Your task to perform on an android device: Add "duracell triple a" to the cart on walmart Image 0: 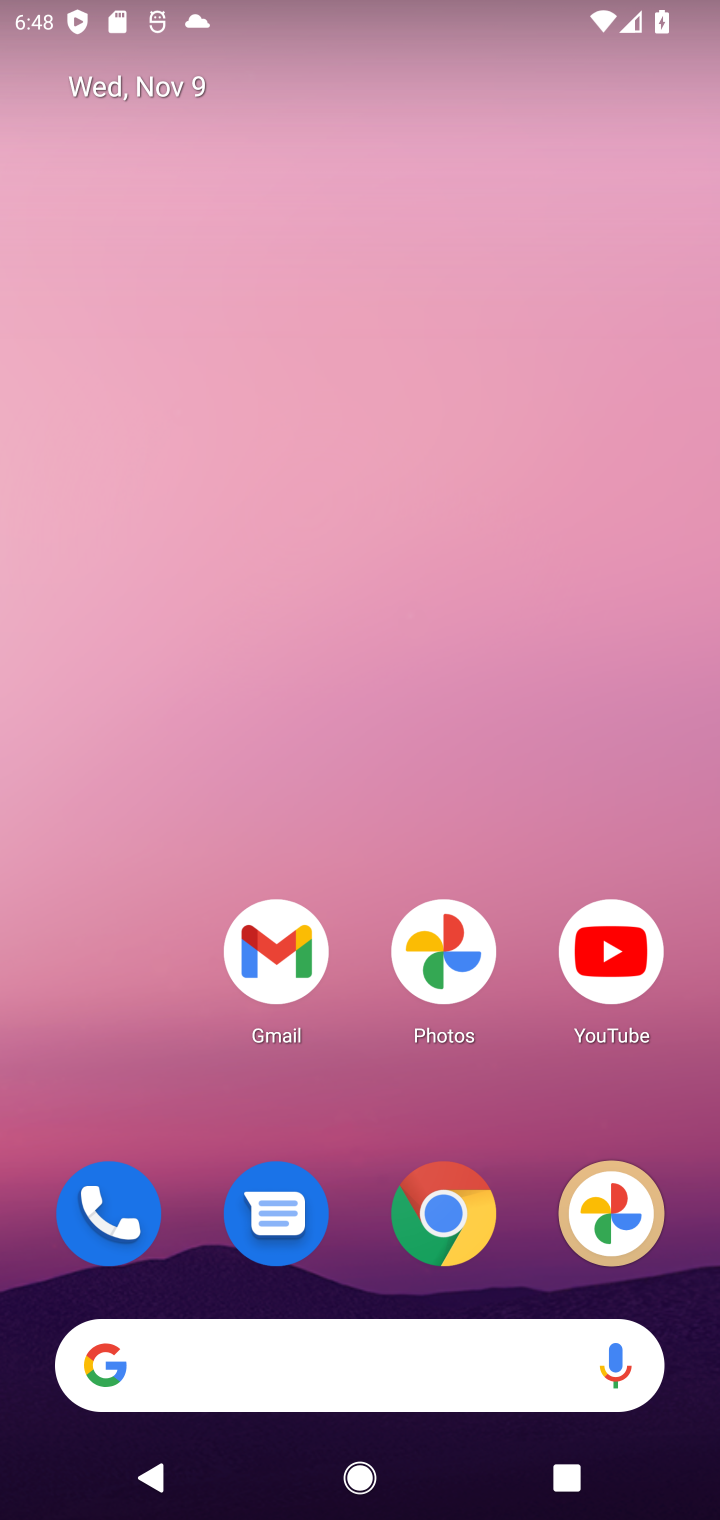
Step 0: click (463, 1234)
Your task to perform on an android device: Add "duracell triple a" to the cart on walmart Image 1: 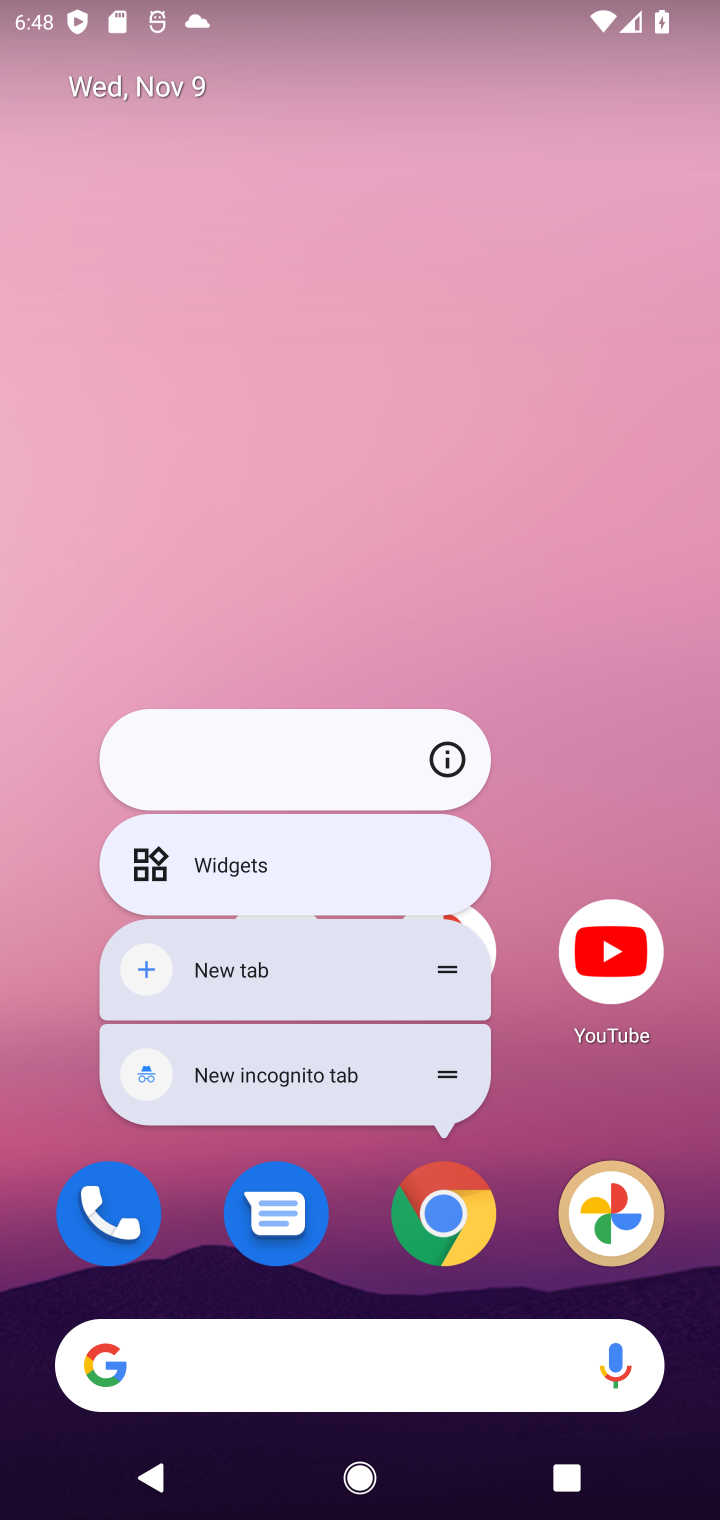
Step 1: click (457, 1234)
Your task to perform on an android device: Add "duracell triple a" to the cart on walmart Image 2: 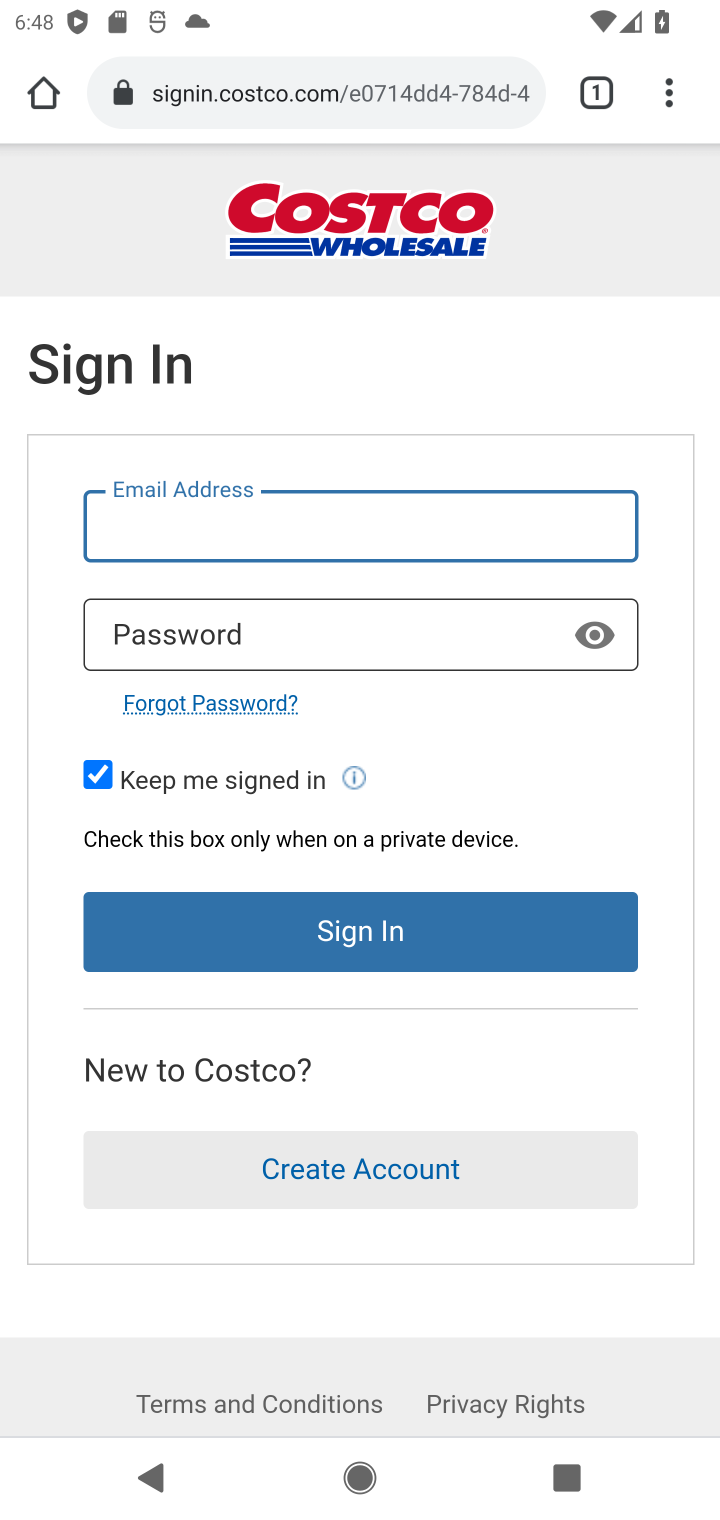
Step 2: click (278, 85)
Your task to perform on an android device: Add "duracell triple a" to the cart on walmart Image 3: 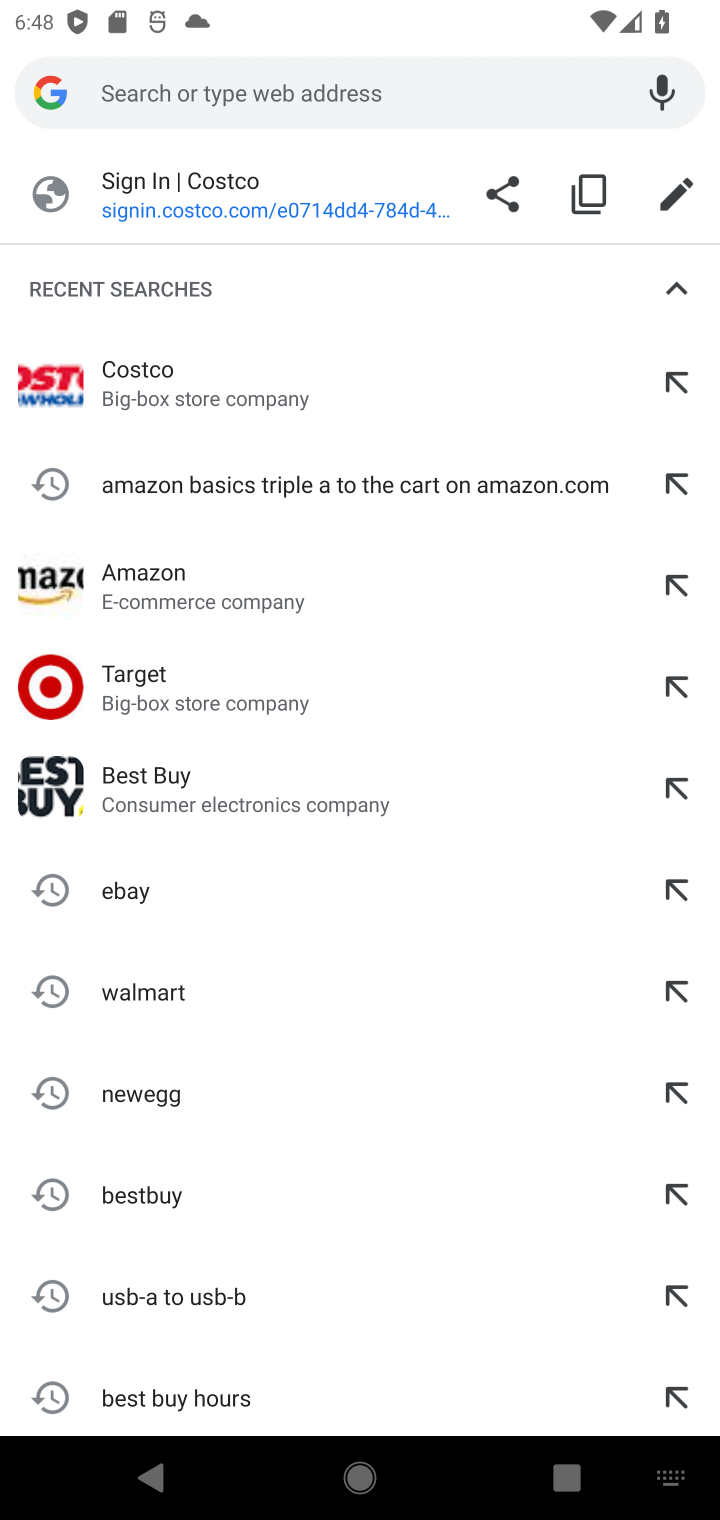
Step 3: type "walmart"
Your task to perform on an android device: Add "duracell triple a" to the cart on walmart Image 4: 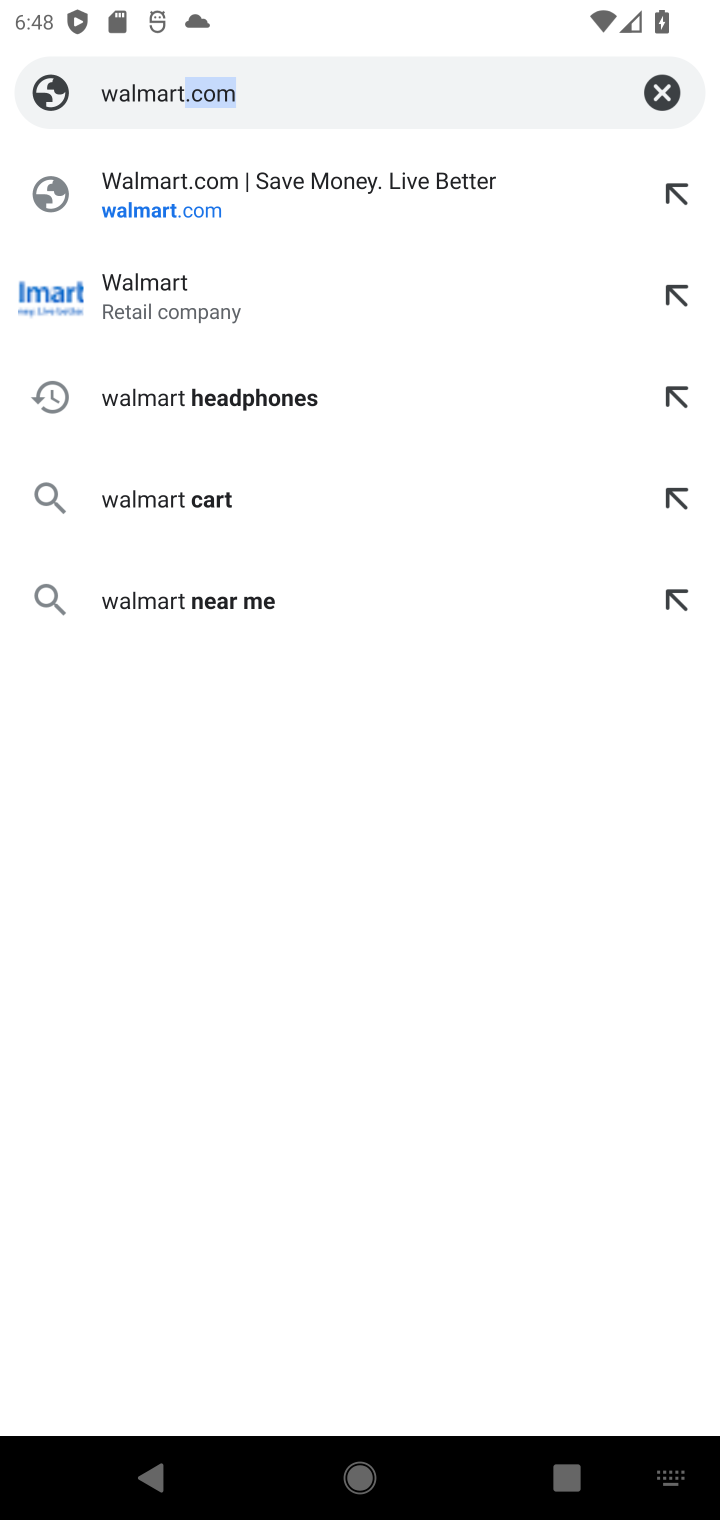
Step 4: click (135, 285)
Your task to perform on an android device: Add "duracell triple a" to the cart on walmart Image 5: 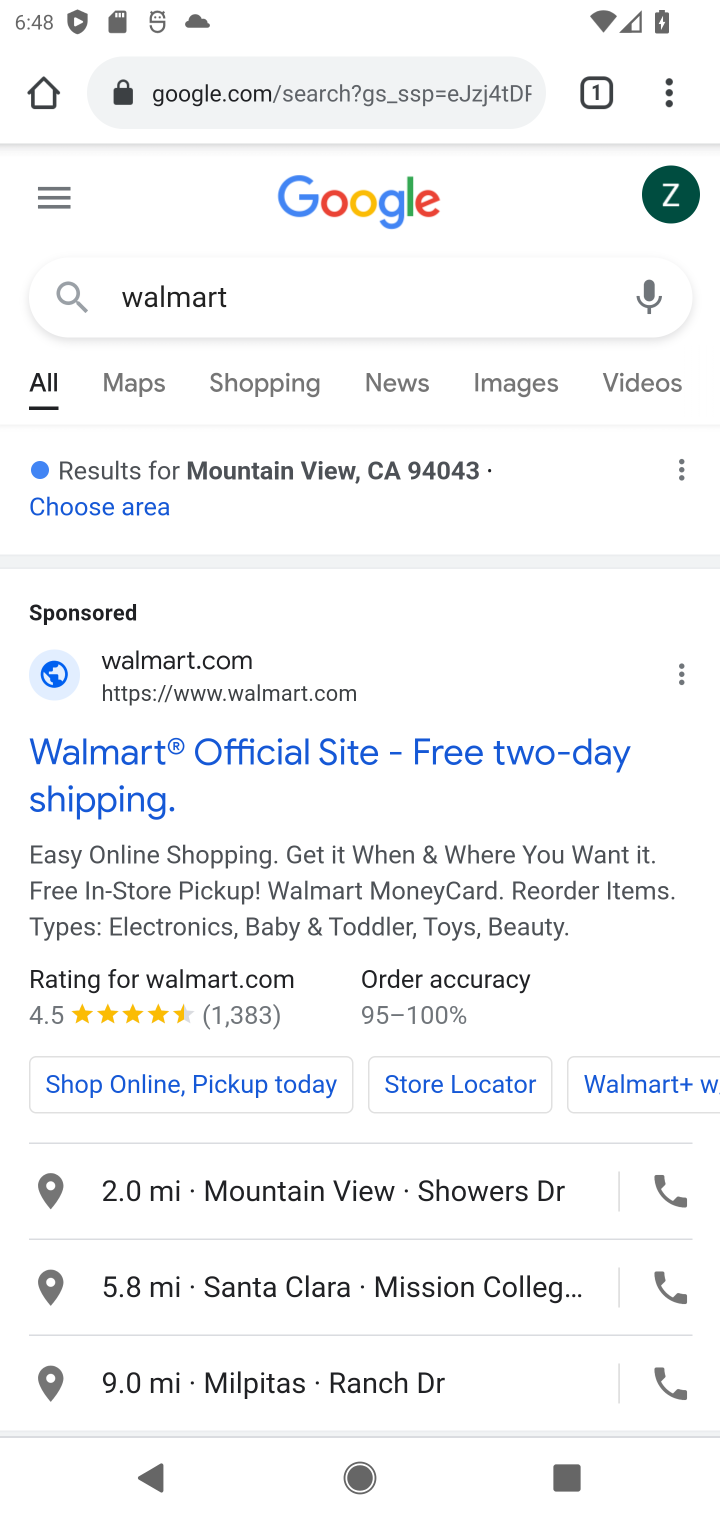
Step 5: drag from (108, 1163) to (390, 253)
Your task to perform on an android device: Add "duracell triple a" to the cart on walmart Image 6: 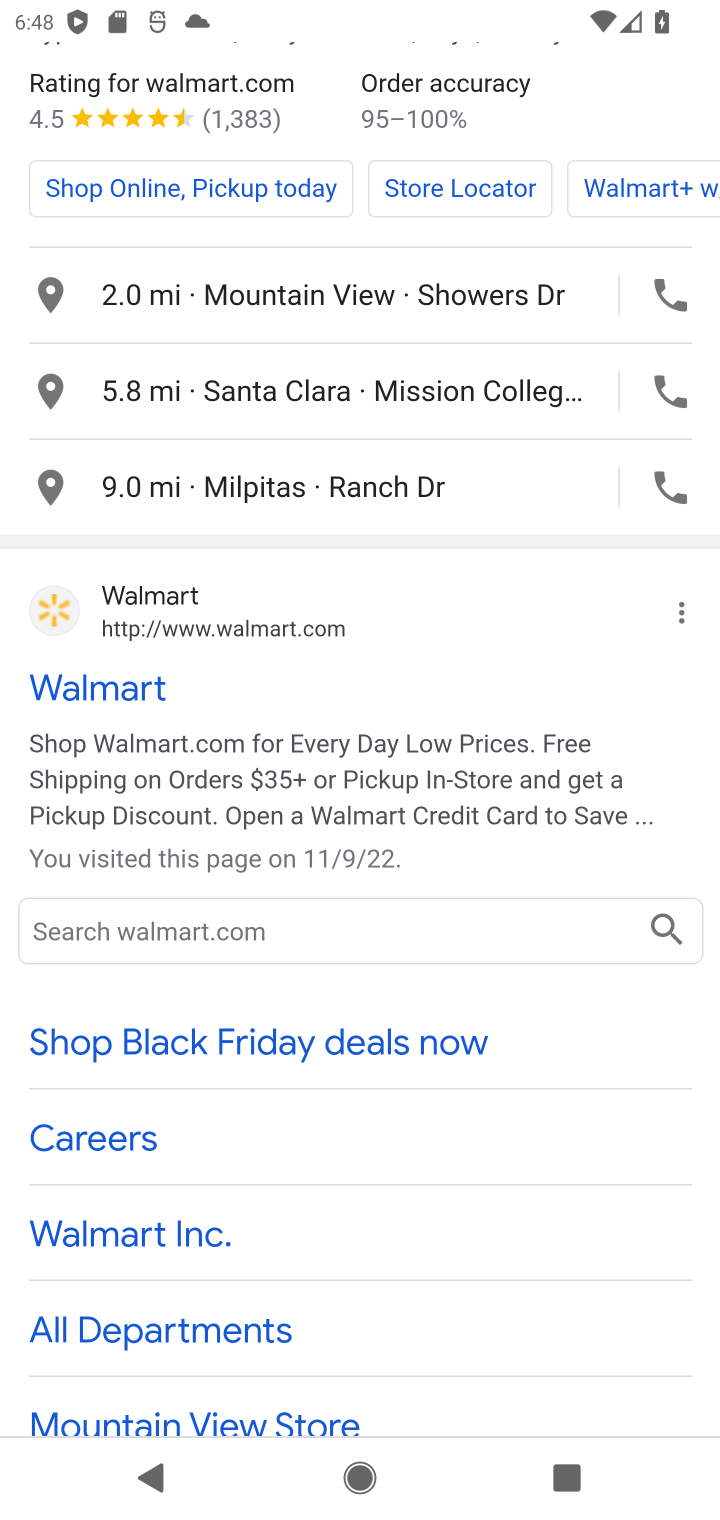
Step 6: click (89, 687)
Your task to perform on an android device: Add "duracell triple a" to the cart on walmart Image 7: 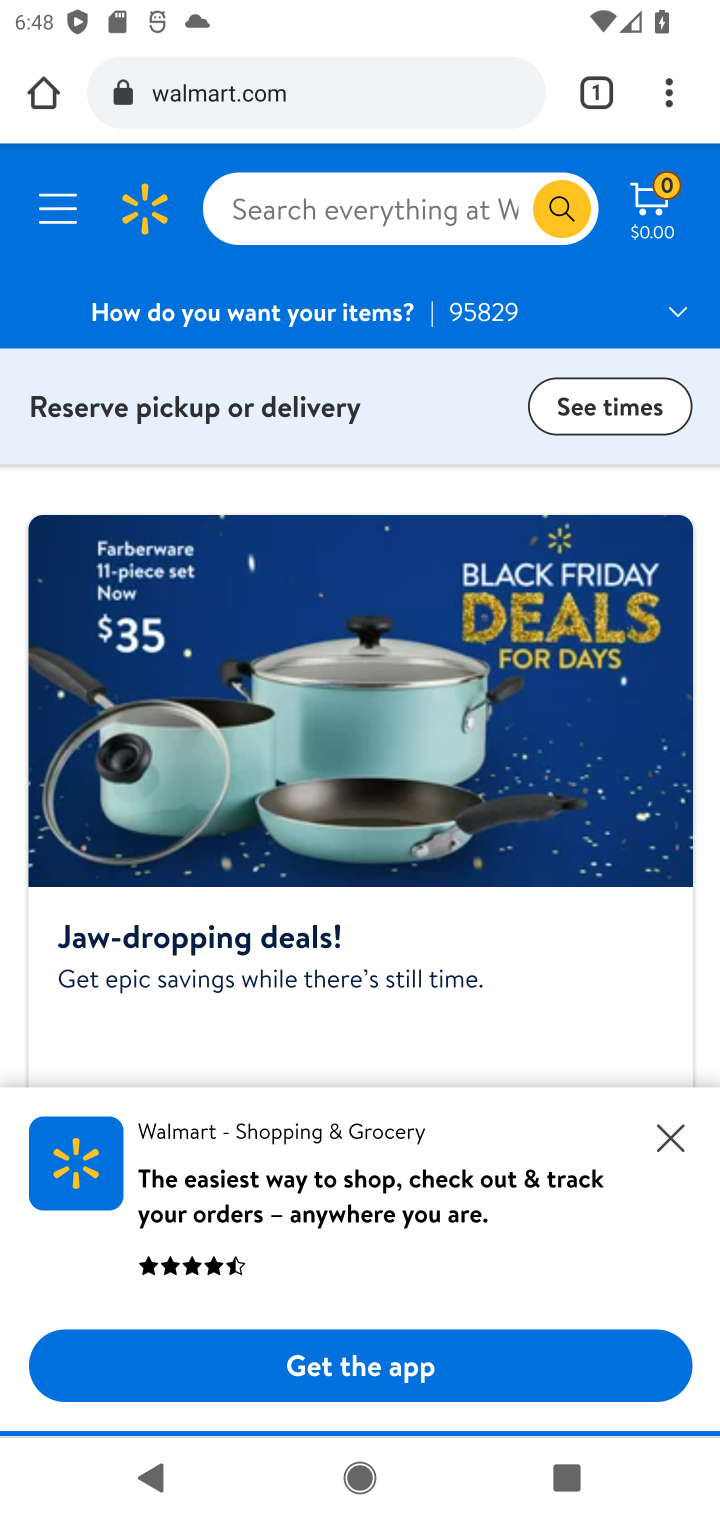
Step 7: click (394, 223)
Your task to perform on an android device: Add "duracell triple a" to the cart on walmart Image 8: 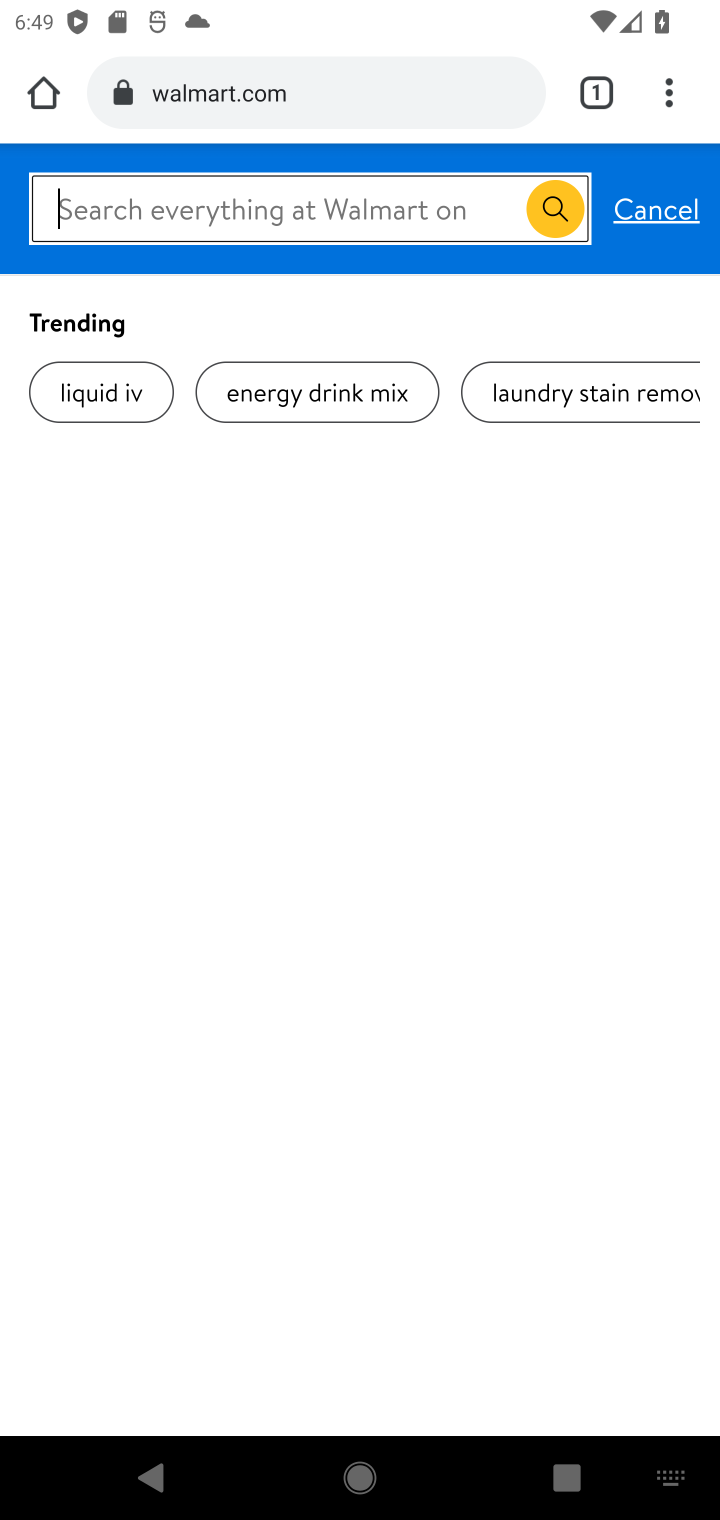
Step 8: type "duracell triple a"
Your task to perform on an android device: Add "duracell triple a" to the cart on walmart Image 9: 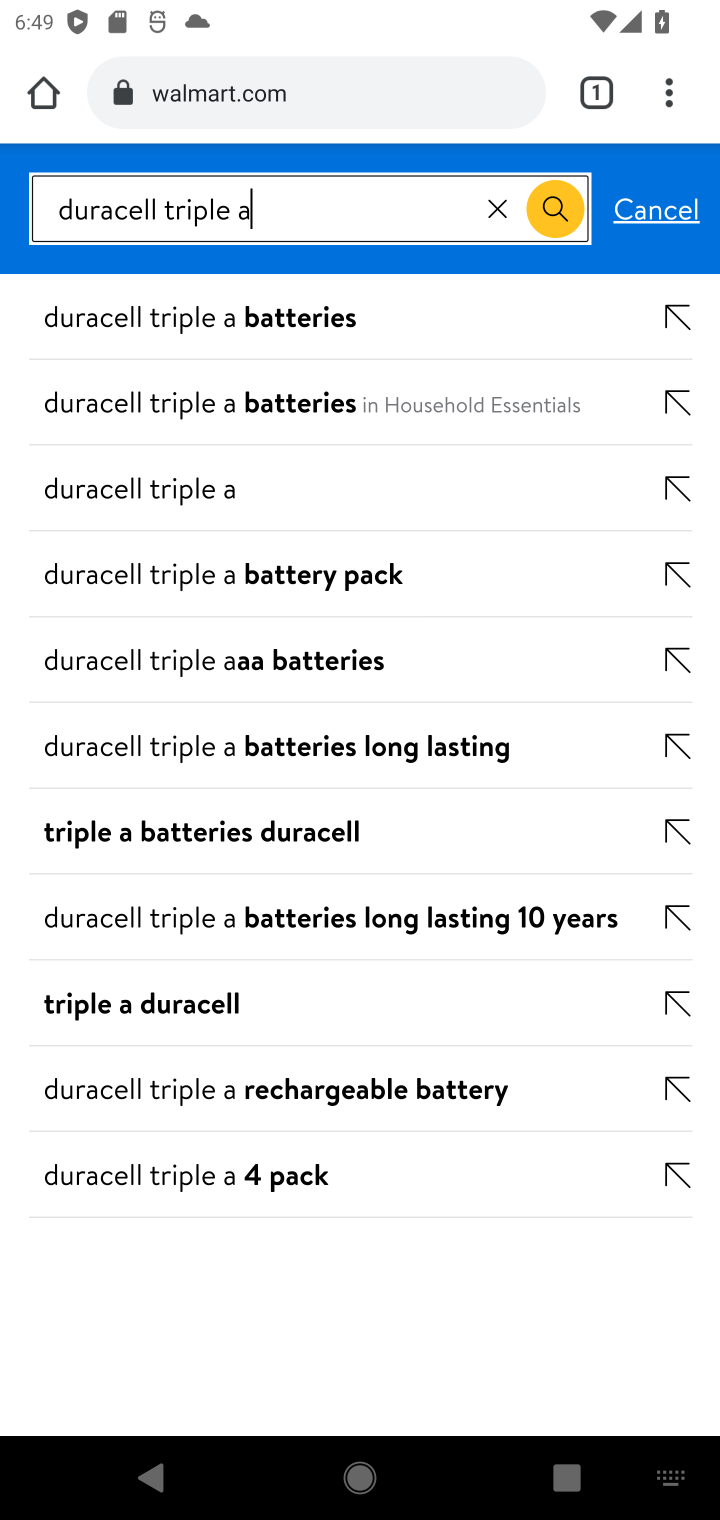
Step 9: click (208, 321)
Your task to perform on an android device: Add "duracell triple a" to the cart on walmart Image 10: 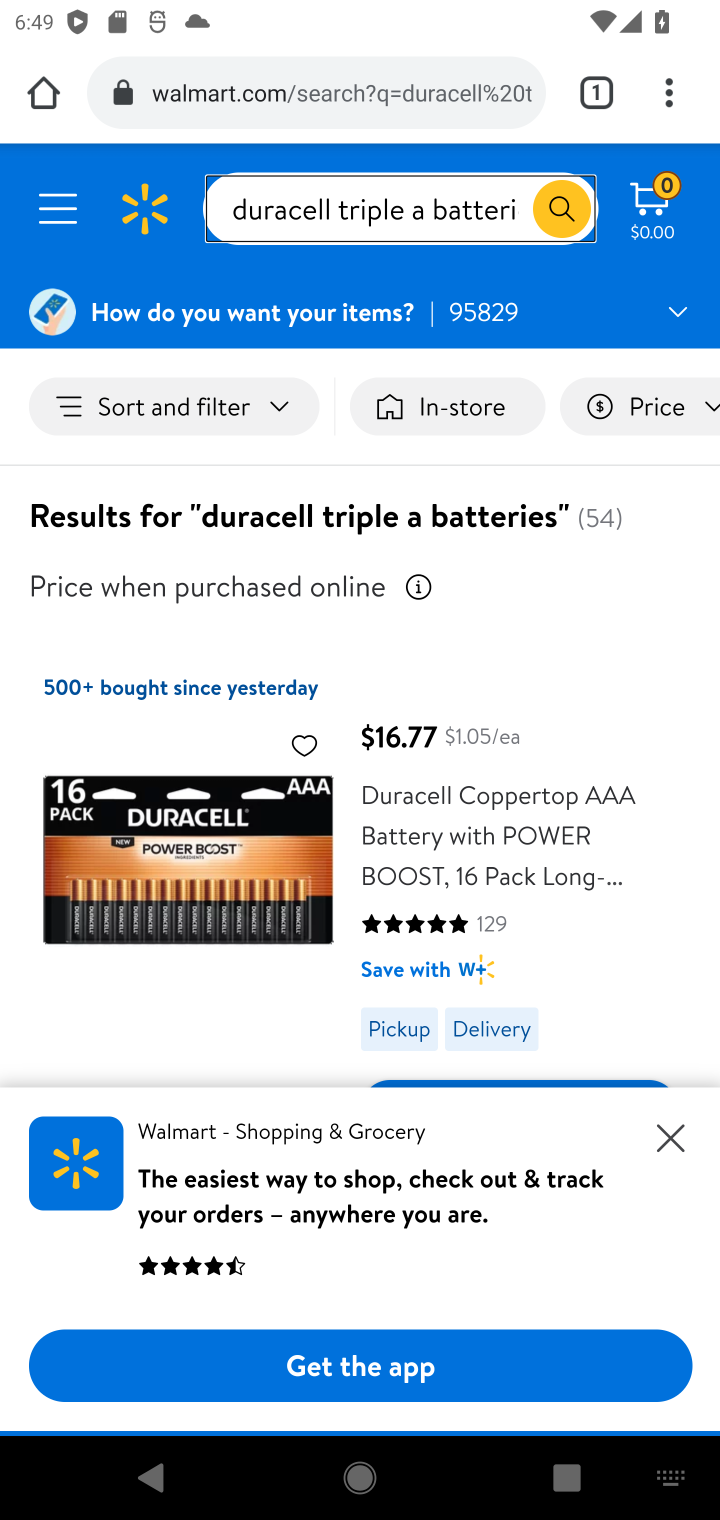
Step 10: click (668, 1134)
Your task to perform on an android device: Add "duracell triple a" to the cart on walmart Image 11: 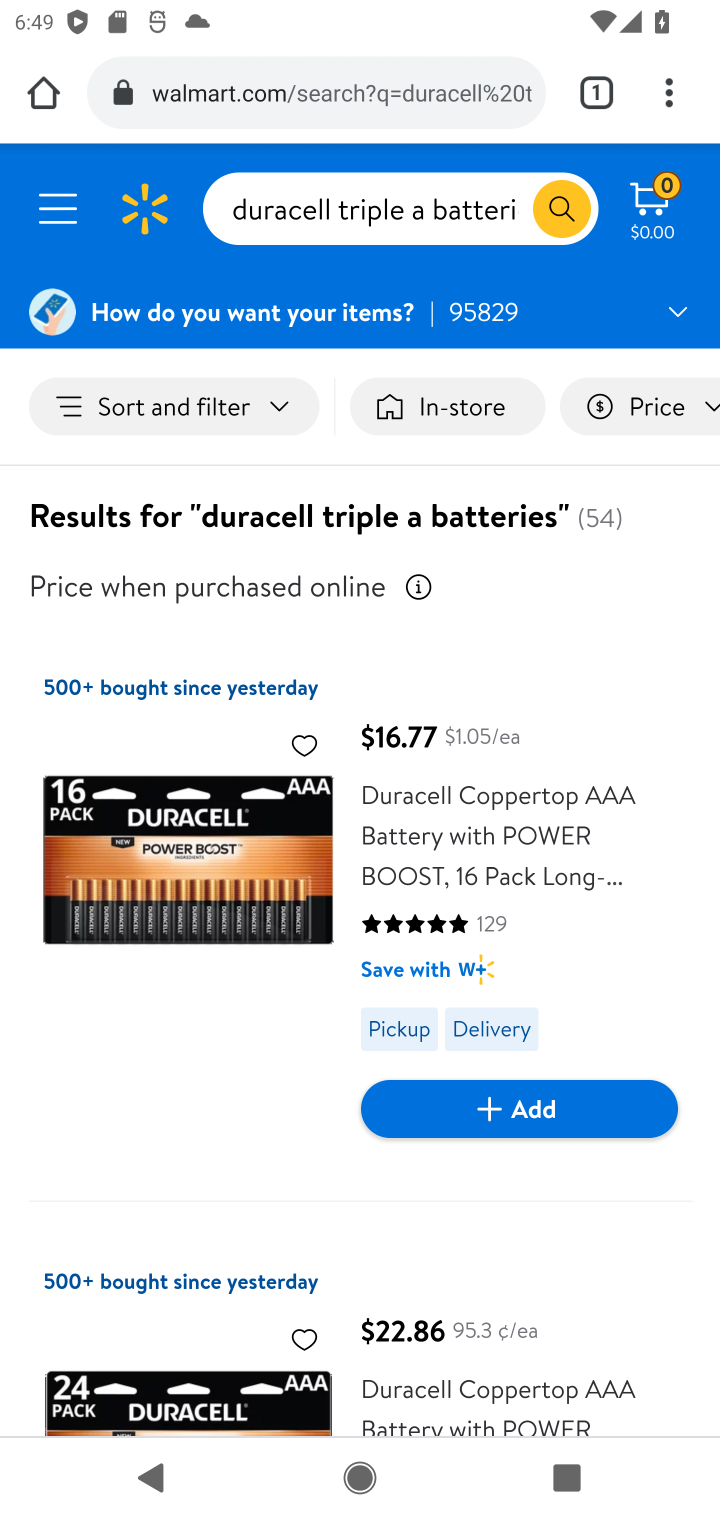
Step 11: click (199, 918)
Your task to perform on an android device: Add "duracell triple a" to the cart on walmart Image 12: 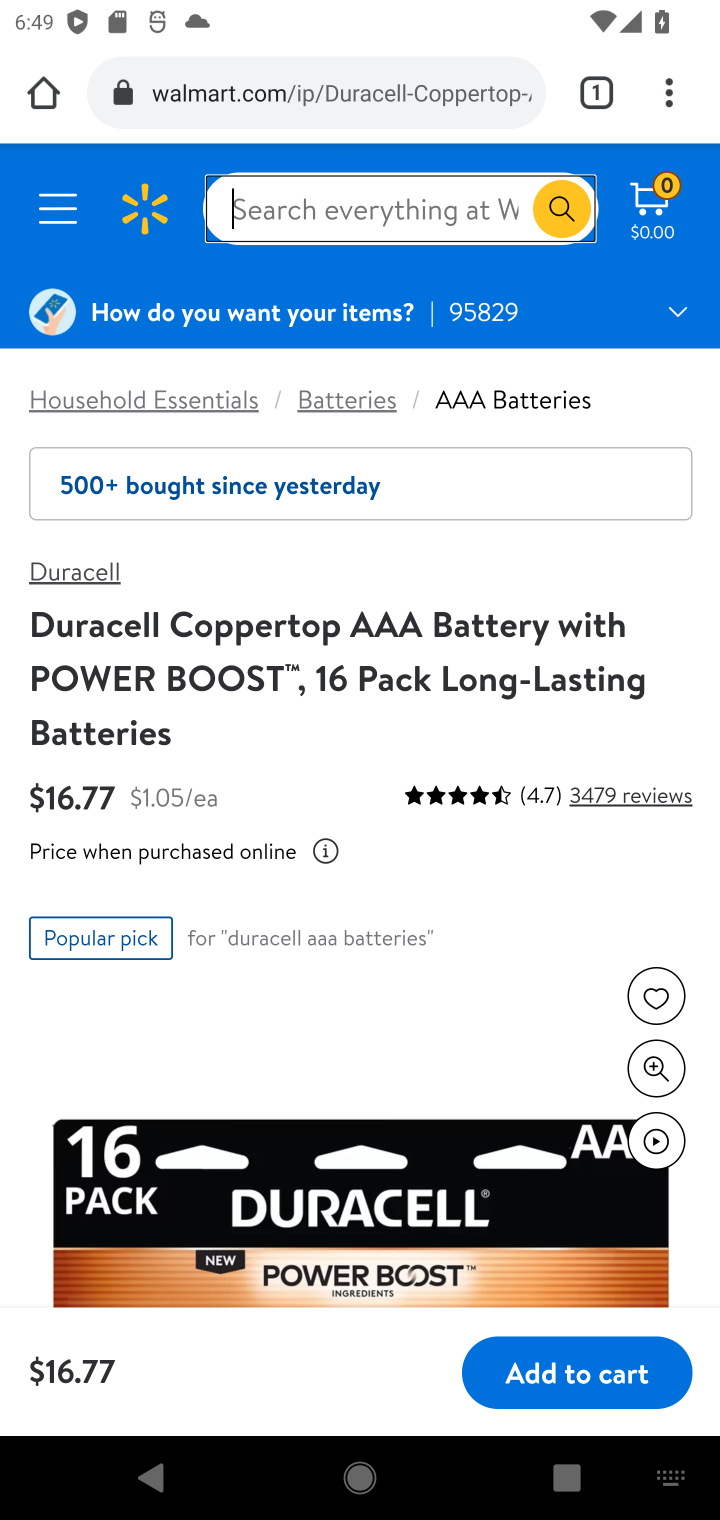
Step 12: click (612, 1385)
Your task to perform on an android device: Add "duracell triple a" to the cart on walmart Image 13: 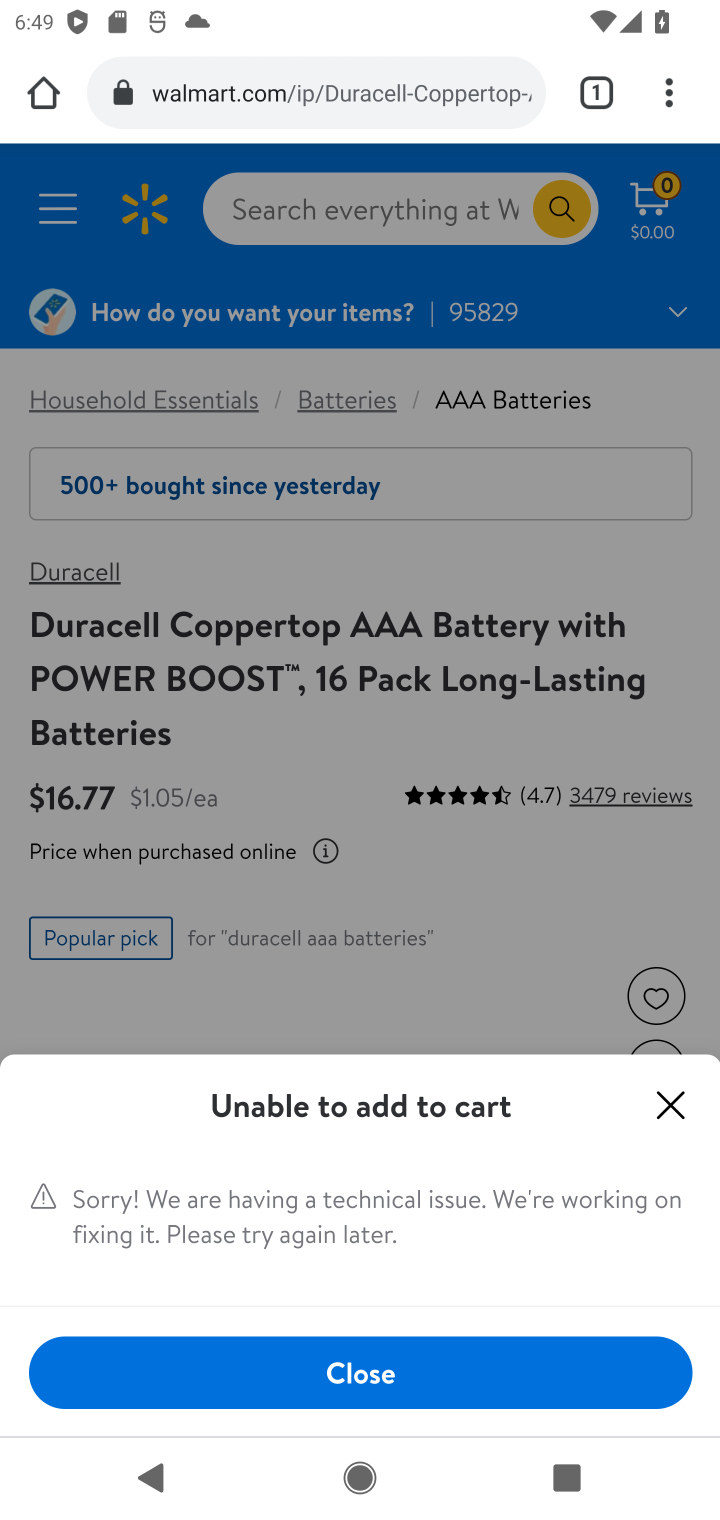
Step 13: click (673, 1097)
Your task to perform on an android device: Add "duracell triple a" to the cart on walmart Image 14: 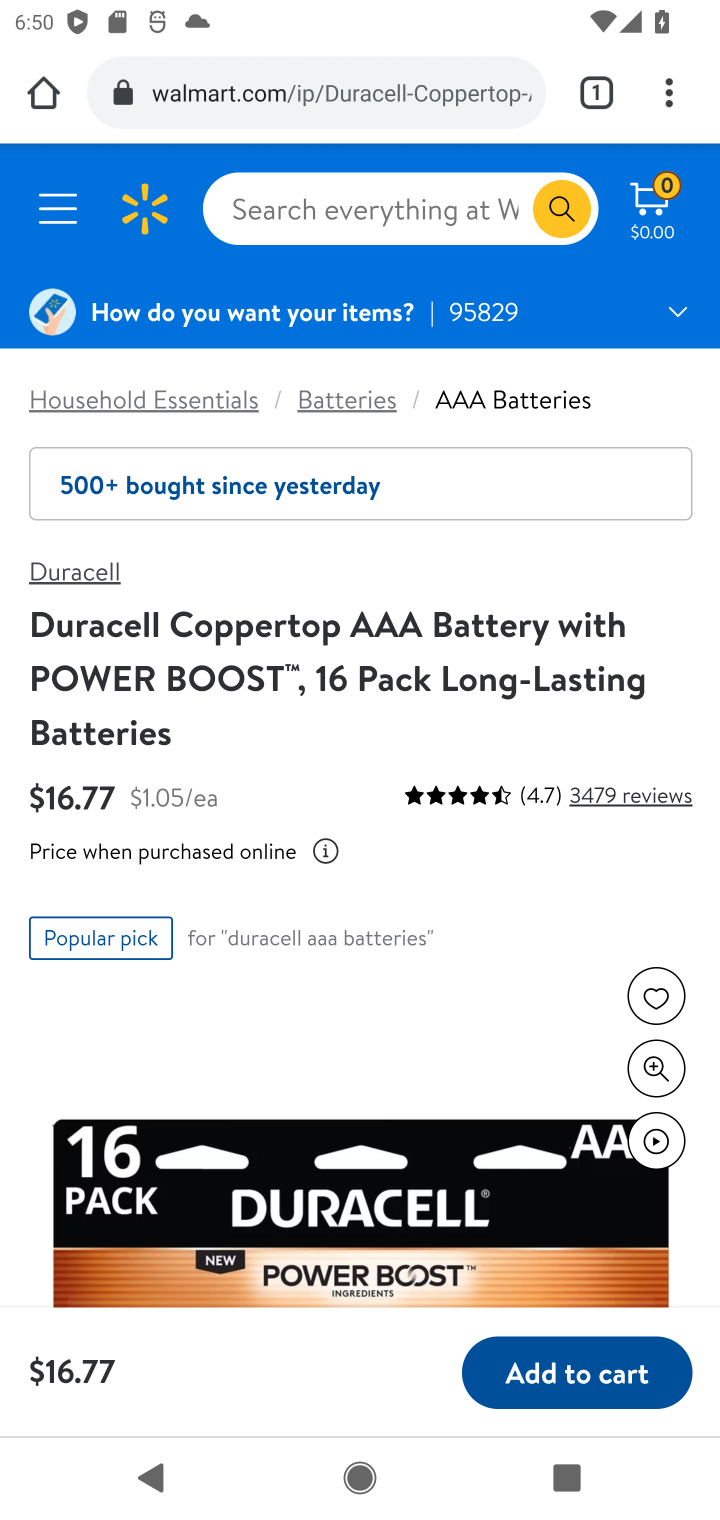
Step 14: click (616, 1380)
Your task to perform on an android device: Add "duracell triple a" to the cart on walmart Image 15: 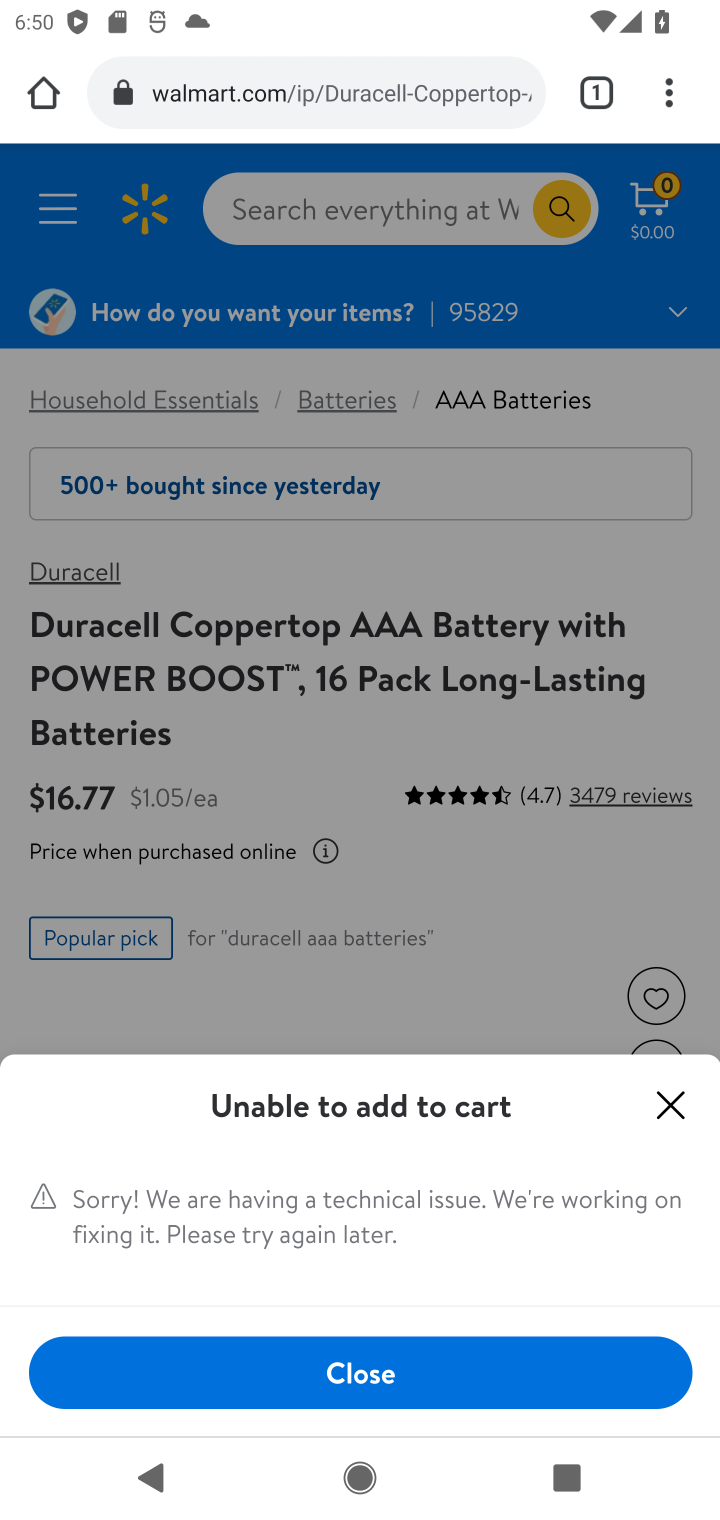
Step 15: click (673, 1108)
Your task to perform on an android device: Add "duracell triple a" to the cart on walmart Image 16: 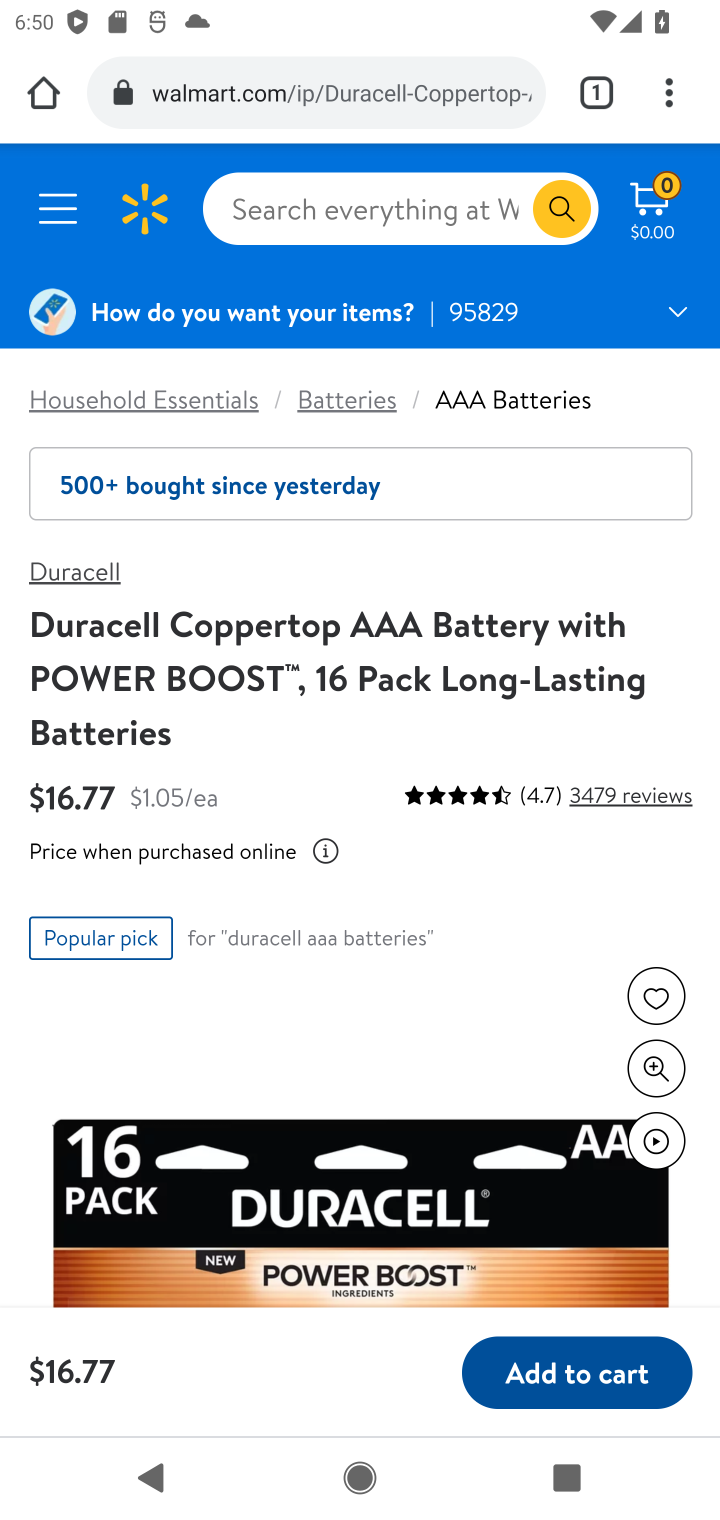
Step 16: click (541, 1383)
Your task to perform on an android device: Add "duracell triple a" to the cart on walmart Image 17: 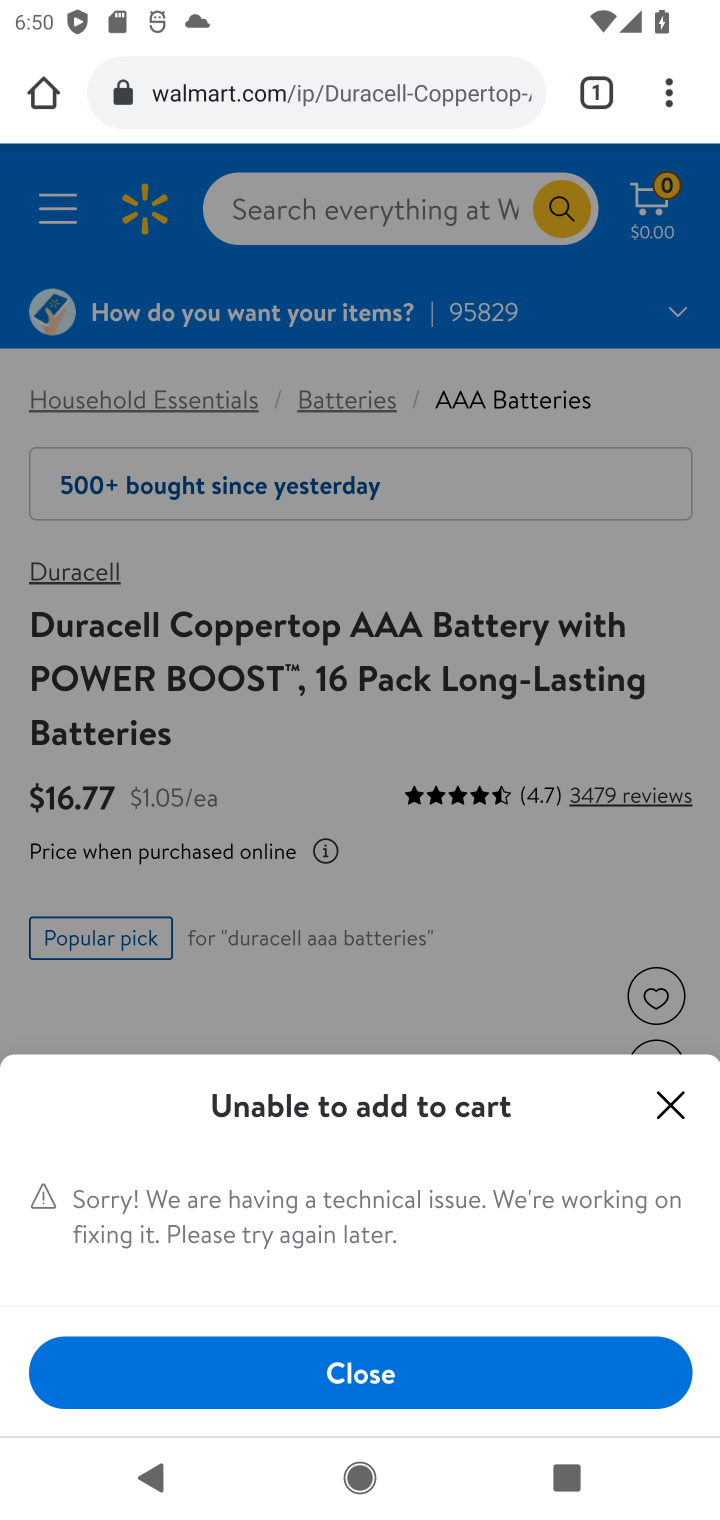
Step 17: click (676, 1101)
Your task to perform on an android device: Add "duracell triple a" to the cart on walmart Image 18: 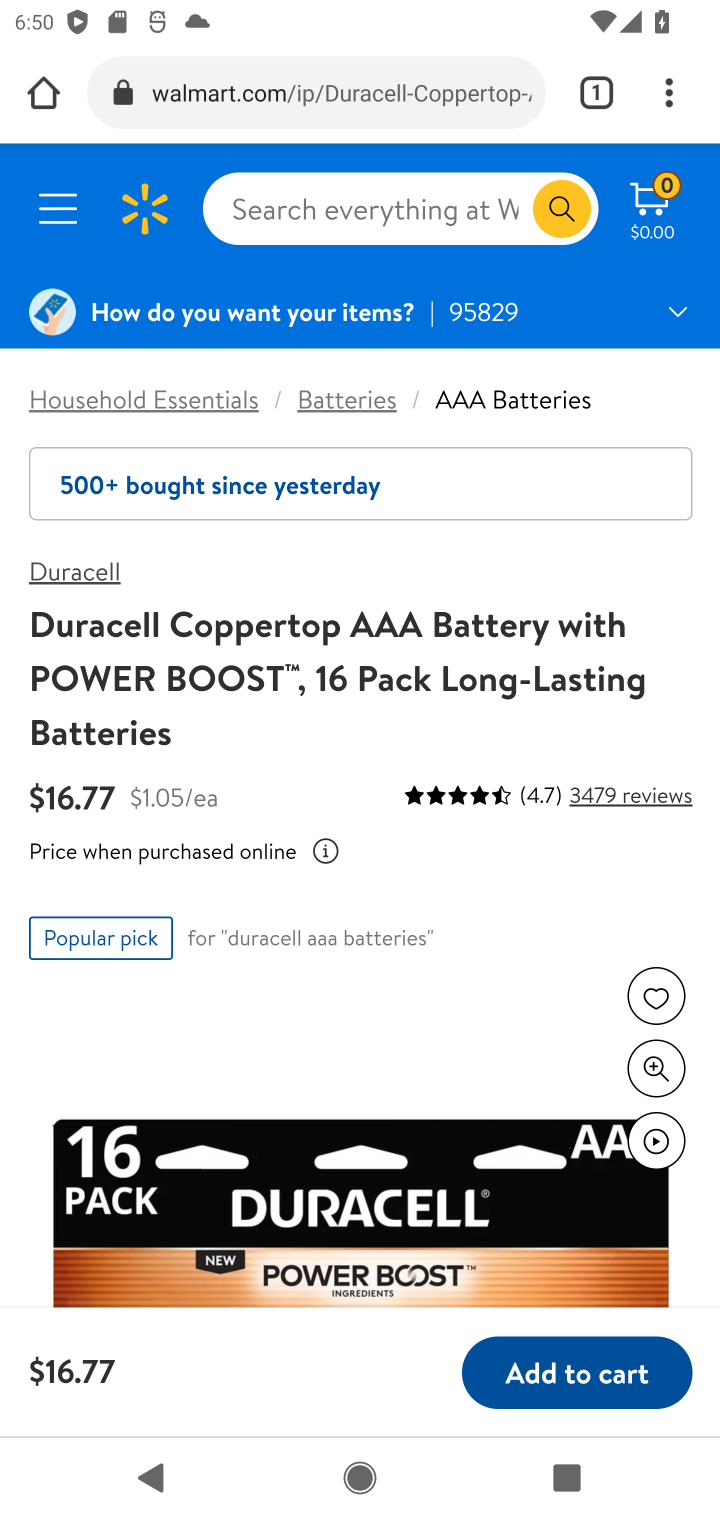
Step 18: task complete